Your task to perform on an android device: see creations saved in the google photos Image 0: 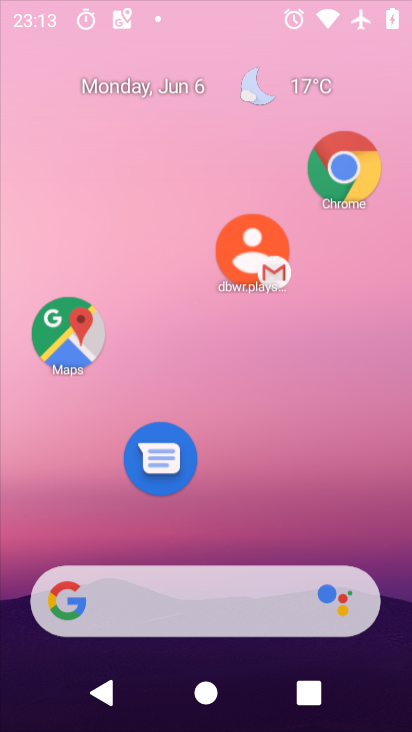
Step 0: click (246, 63)
Your task to perform on an android device: see creations saved in the google photos Image 1: 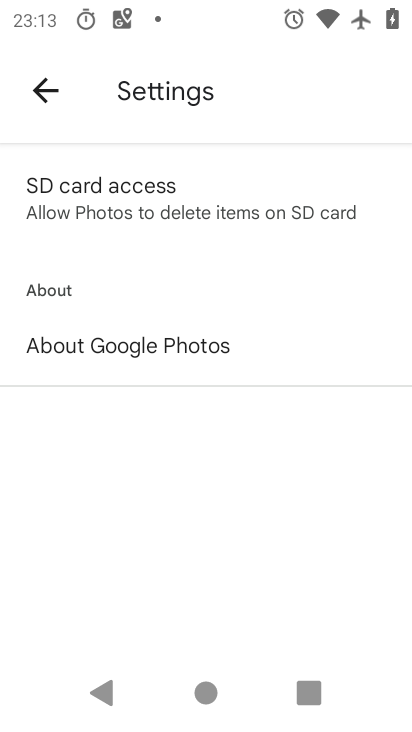
Step 1: drag from (217, 343) to (230, 83)
Your task to perform on an android device: see creations saved in the google photos Image 2: 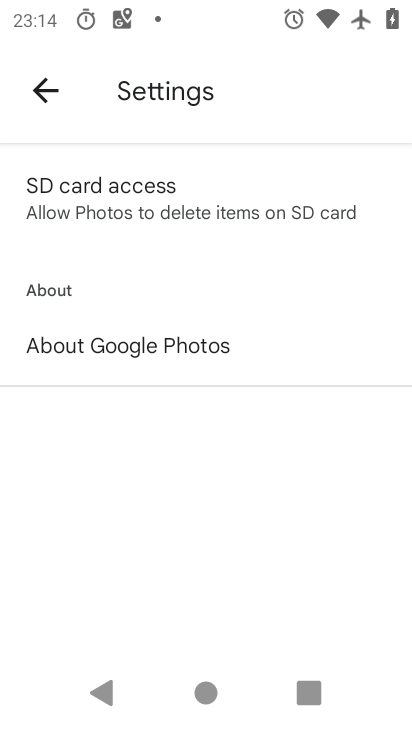
Step 2: drag from (142, 468) to (185, 224)
Your task to perform on an android device: see creations saved in the google photos Image 3: 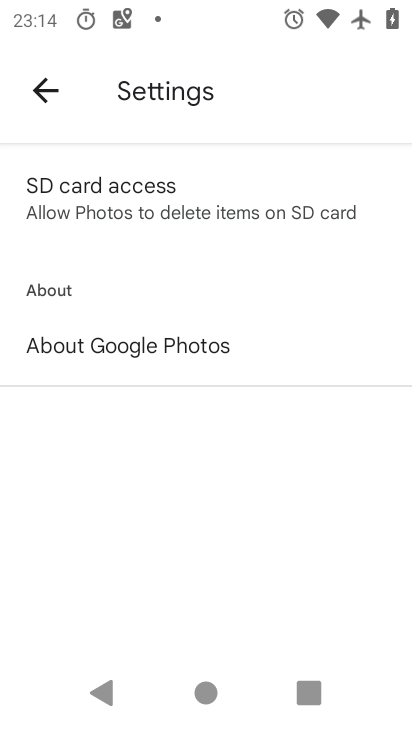
Step 3: press home button
Your task to perform on an android device: see creations saved in the google photos Image 4: 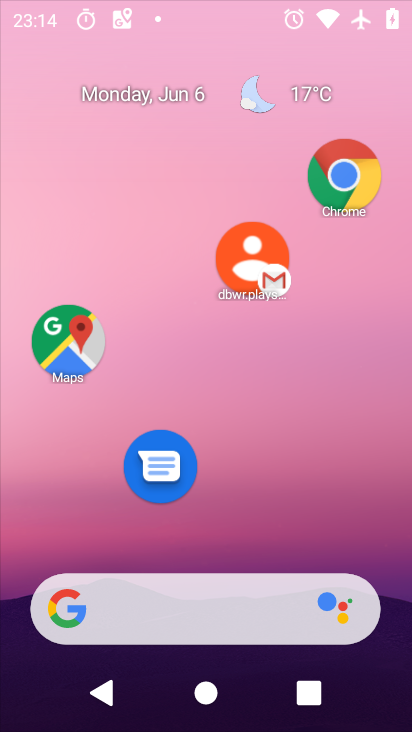
Step 4: drag from (222, 548) to (299, 163)
Your task to perform on an android device: see creations saved in the google photos Image 5: 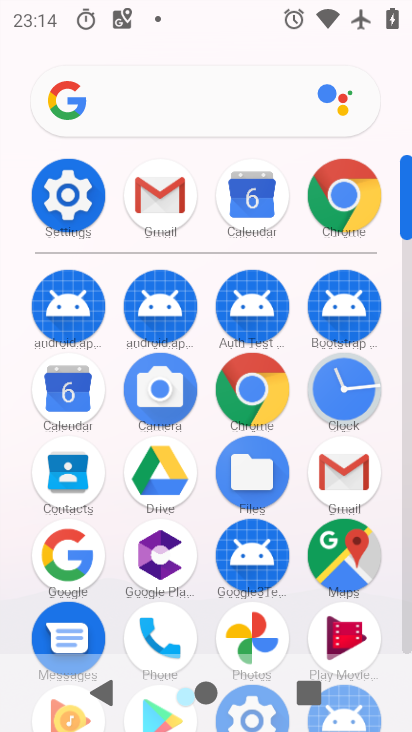
Step 5: click (239, 623)
Your task to perform on an android device: see creations saved in the google photos Image 6: 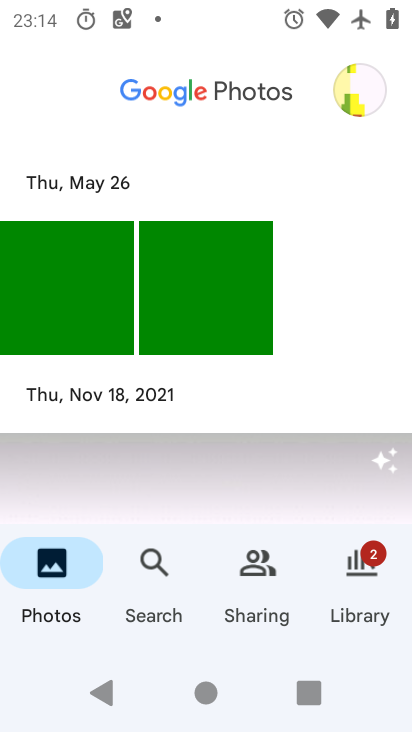
Step 6: drag from (250, 485) to (308, 72)
Your task to perform on an android device: see creations saved in the google photos Image 7: 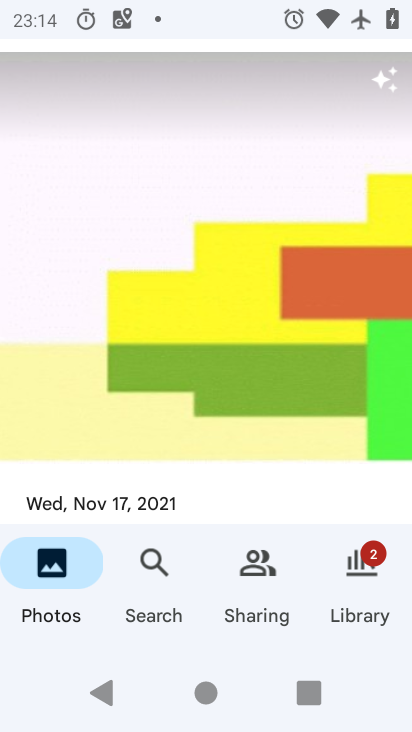
Step 7: drag from (217, 489) to (234, 36)
Your task to perform on an android device: see creations saved in the google photos Image 8: 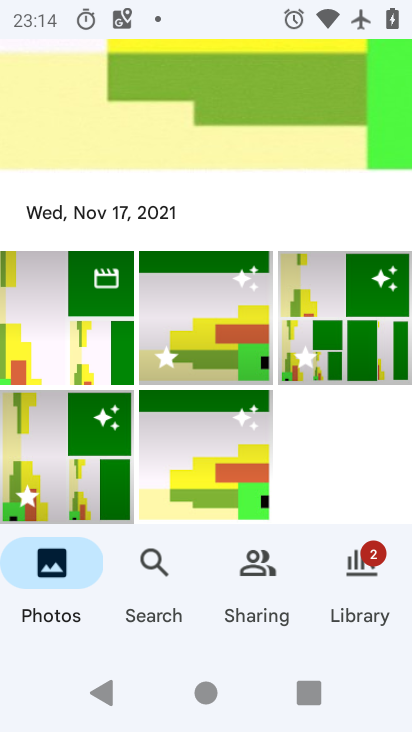
Step 8: click (141, 586)
Your task to perform on an android device: see creations saved in the google photos Image 9: 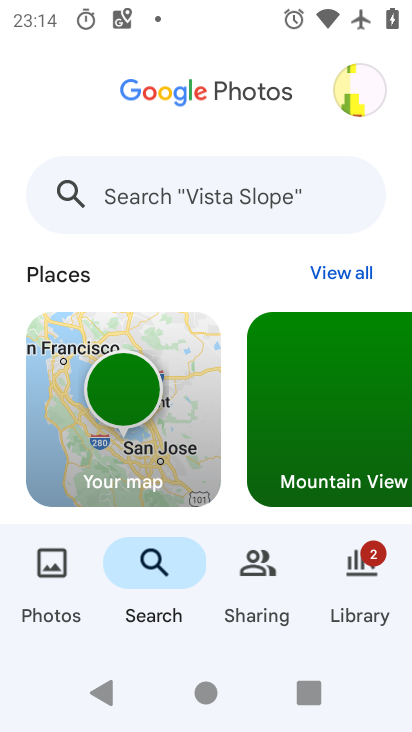
Step 9: click (198, 203)
Your task to perform on an android device: see creations saved in the google photos Image 10: 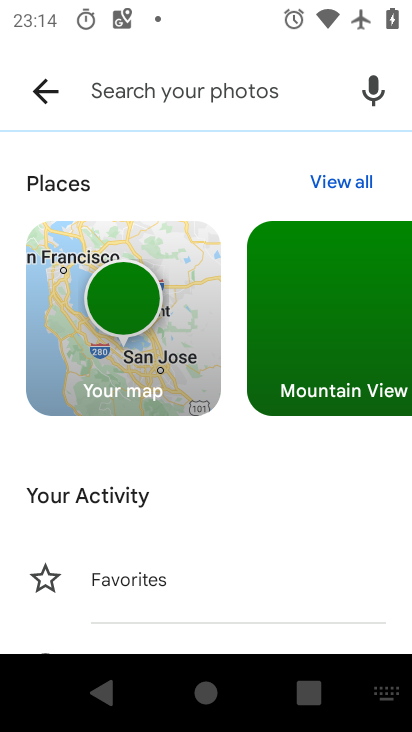
Step 10: drag from (164, 478) to (236, 22)
Your task to perform on an android device: see creations saved in the google photos Image 11: 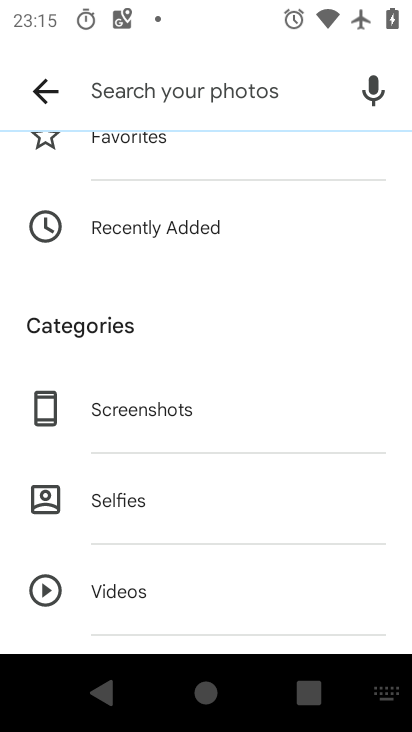
Step 11: drag from (207, 424) to (165, 2)
Your task to perform on an android device: see creations saved in the google photos Image 12: 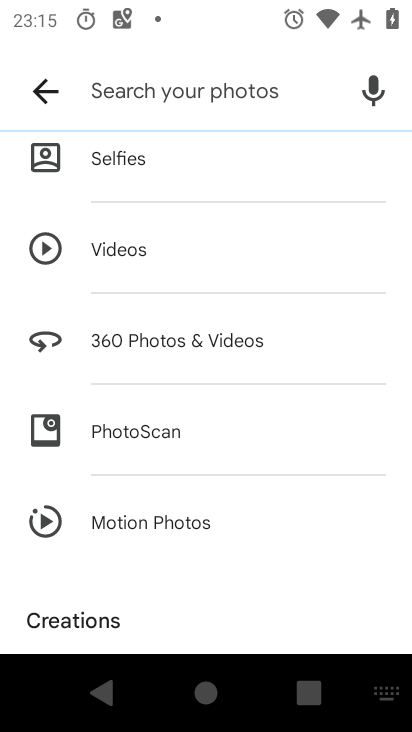
Step 12: drag from (167, 543) to (195, 110)
Your task to perform on an android device: see creations saved in the google photos Image 13: 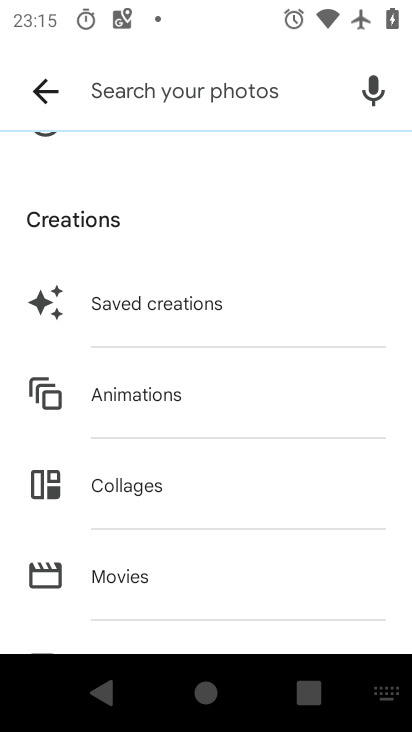
Step 13: click (168, 286)
Your task to perform on an android device: see creations saved in the google photos Image 14: 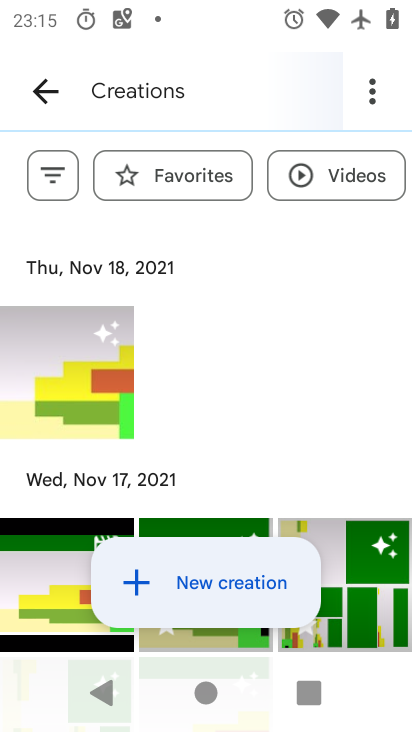
Step 14: drag from (234, 369) to (242, 90)
Your task to perform on an android device: see creations saved in the google photos Image 15: 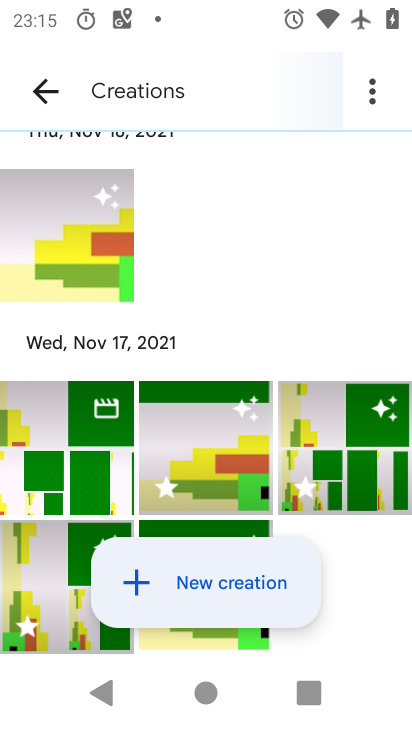
Step 15: click (76, 443)
Your task to perform on an android device: see creations saved in the google photos Image 16: 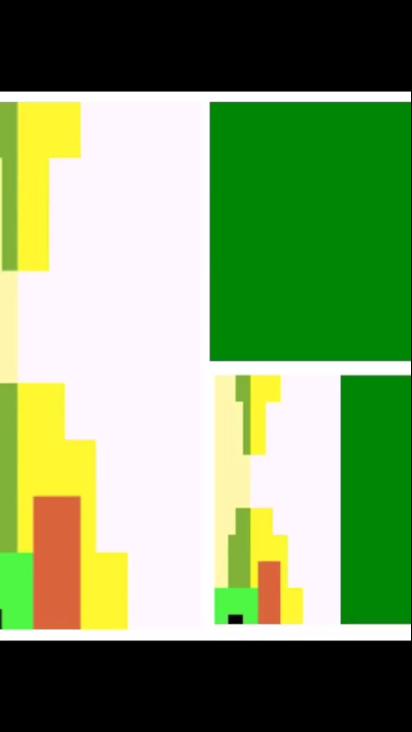
Step 16: task complete